Your task to perform on an android device: search for starred emails in the gmail app Image 0: 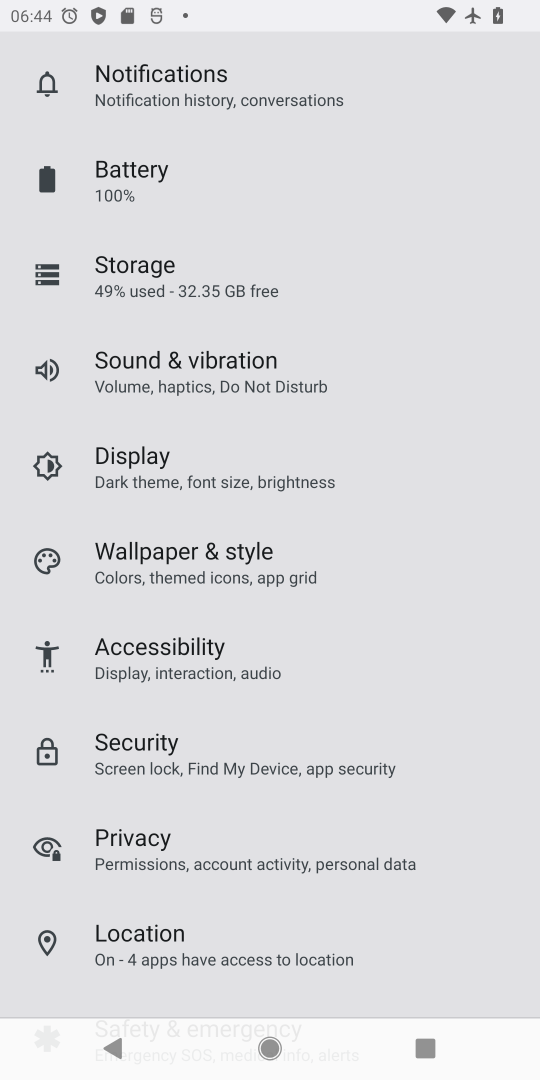
Step 0: press home button
Your task to perform on an android device: search for starred emails in the gmail app Image 1: 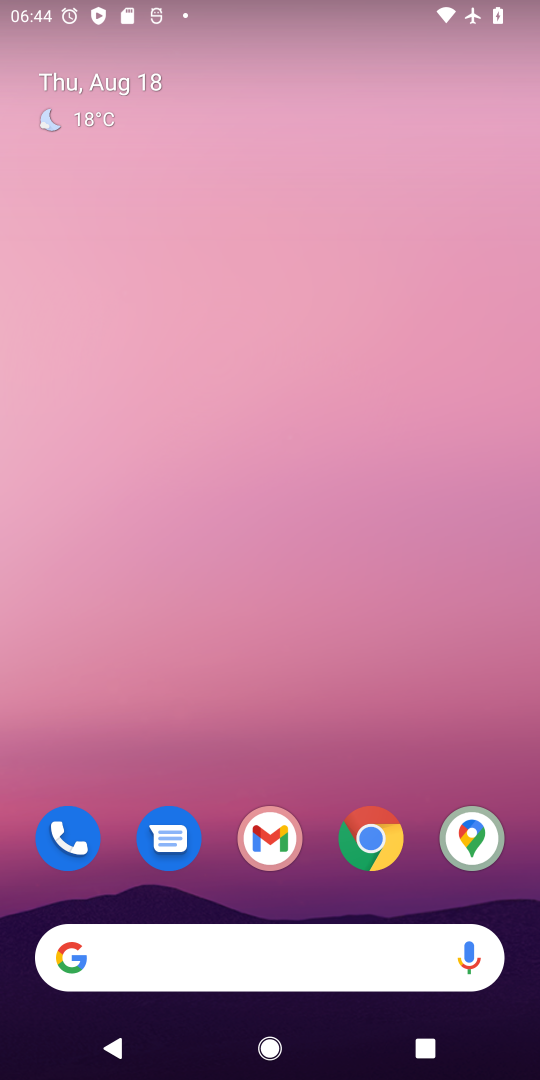
Step 1: click (263, 847)
Your task to perform on an android device: search for starred emails in the gmail app Image 2: 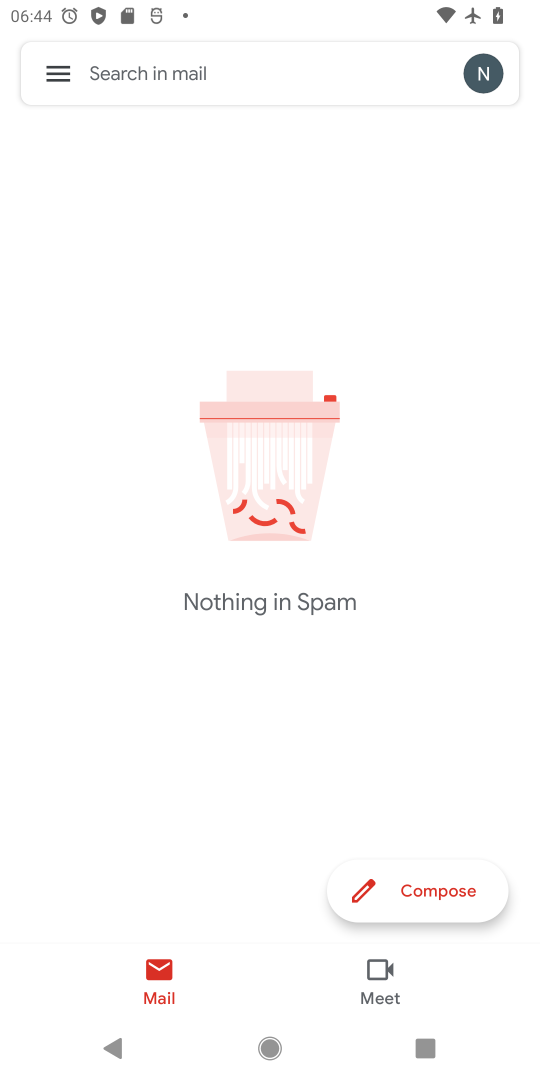
Step 2: click (51, 84)
Your task to perform on an android device: search for starred emails in the gmail app Image 3: 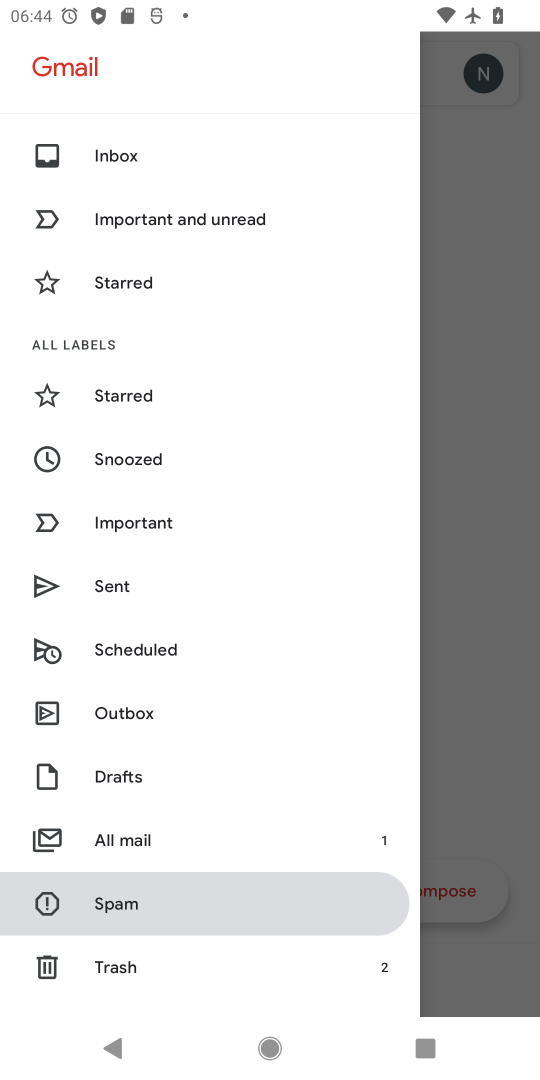
Step 3: click (140, 286)
Your task to perform on an android device: search for starred emails in the gmail app Image 4: 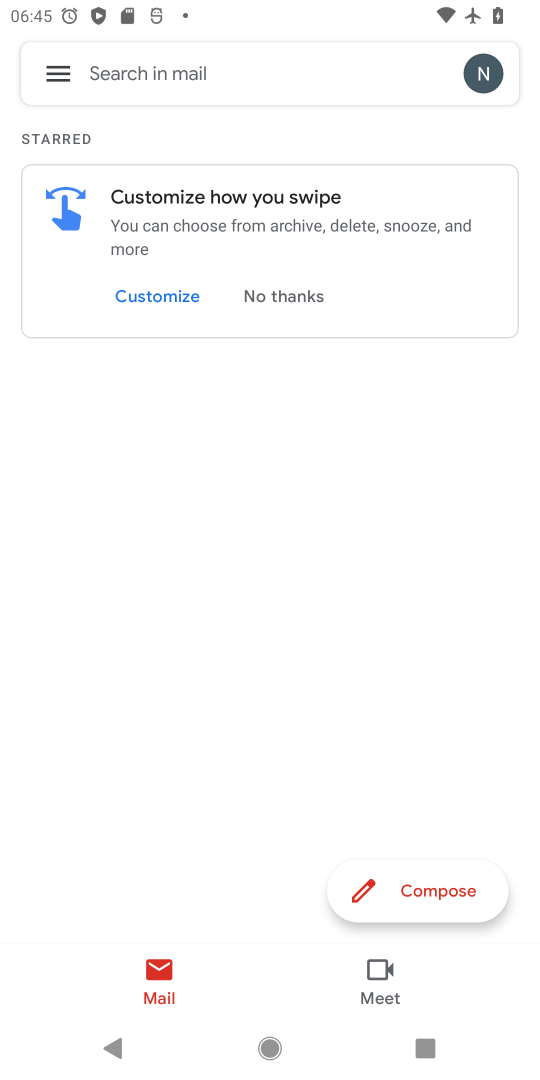
Step 4: click (339, 476)
Your task to perform on an android device: search for starred emails in the gmail app Image 5: 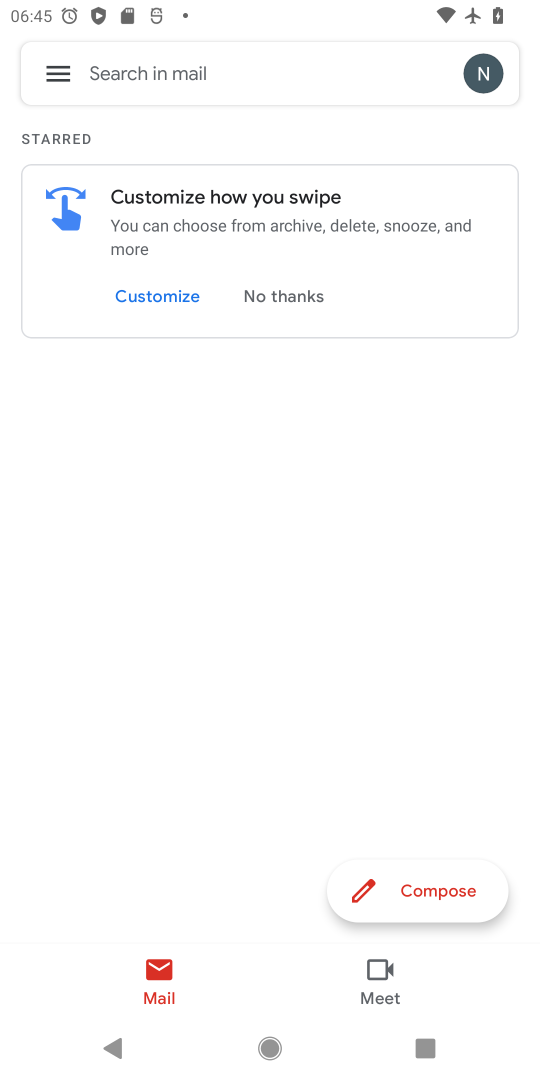
Step 5: click (263, 303)
Your task to perform on an android device: search for starred emails in the gmail app Image 6: 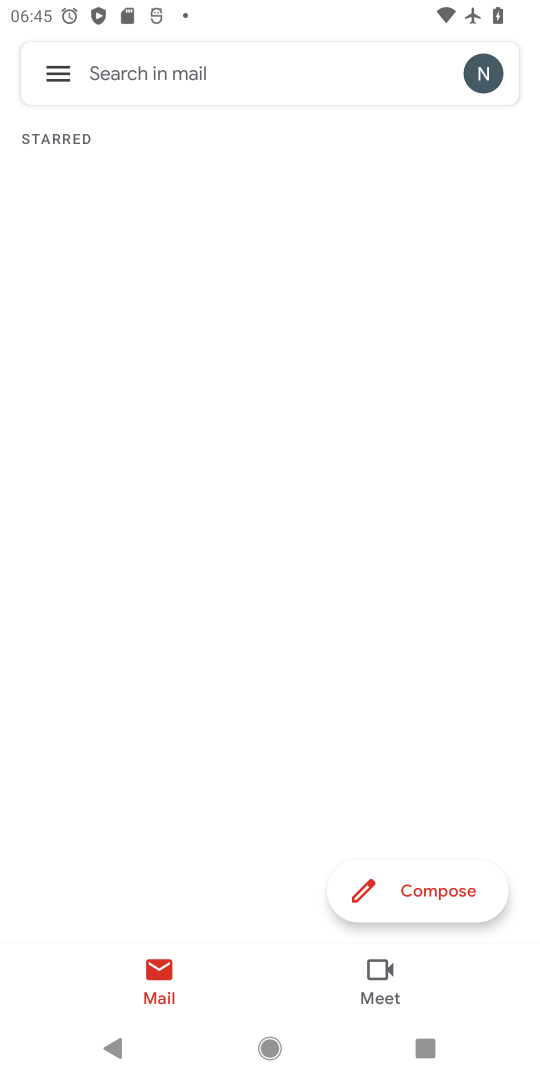
Step 6: task complete